Your task to perform on an android device: toggle priority inbox in the gmail app Image 0: 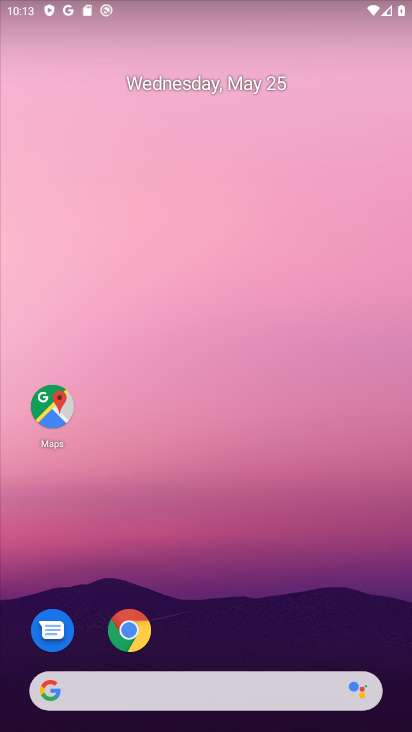
Step 0: drag from (284, 598) to (291, 7)
Your task to perform on an android device: toggle priority inbox in the gmail app Image 1: 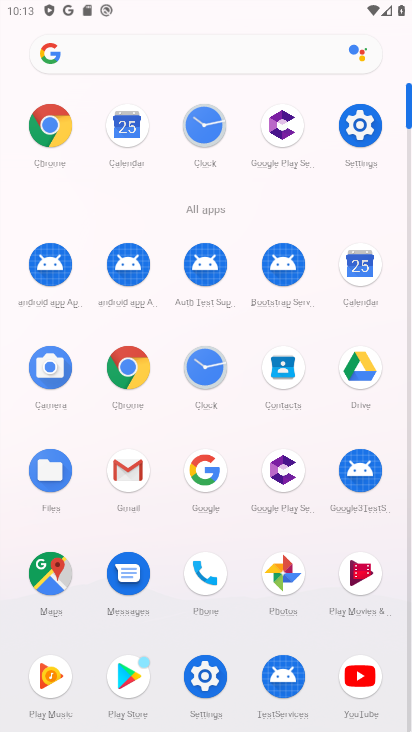
Step 1: click (134, 478)
Your task to perform on an android device: toggle priority inbox in the gmail app Image 2: 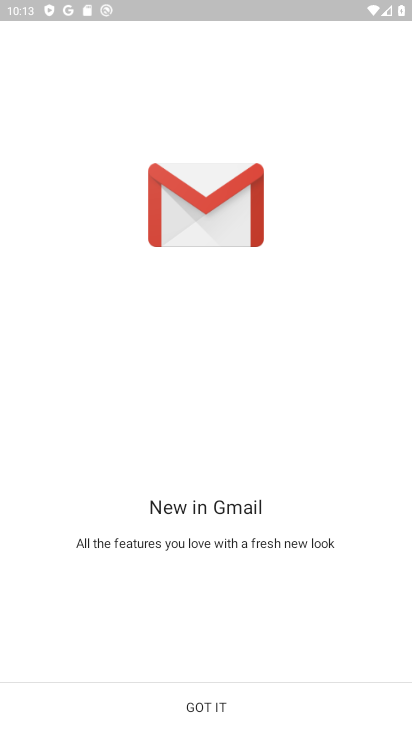
Step 2: click (294, 709)
Your task to perform on an android device: toggle priority inbox in the gmail app Image 3: 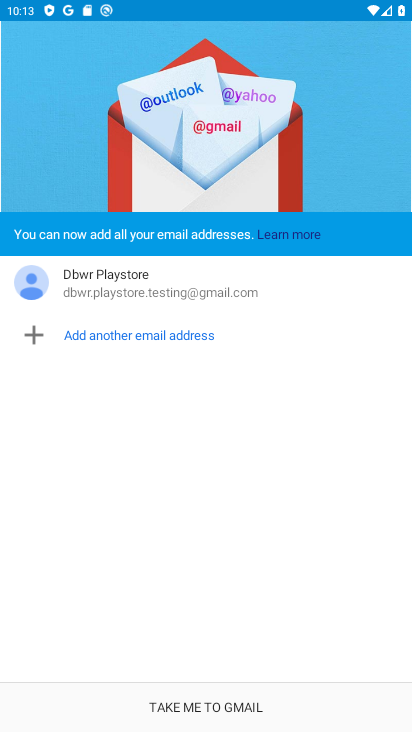
Step 3: click (287, 704)
Your task to perform on an android device: toggle priority inbox in the gmail app Image 4: 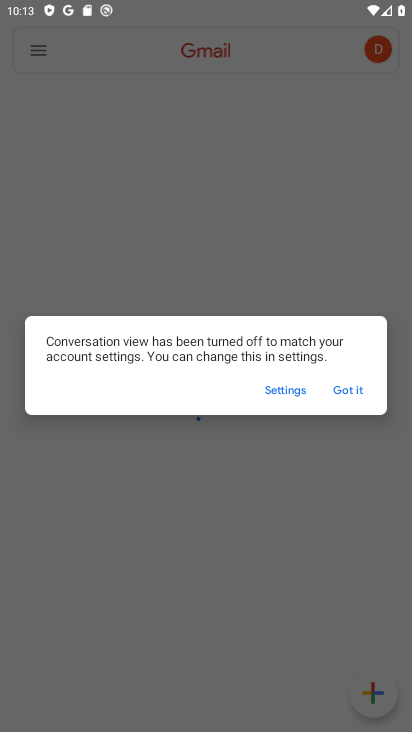
Step 4: click (346, 391)
Your task to perform on an android device: toggle priority inbox in the gmail app Image 5: 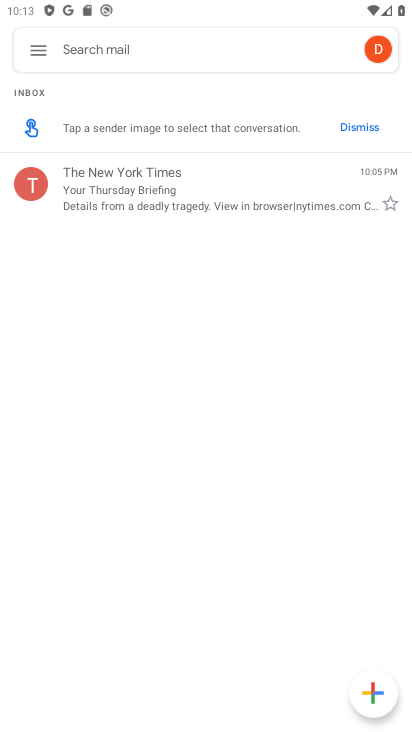
Step 5: click (37, 46)
Your task to perform on an android device: toggle priority inbox in the gmail app Image 6: 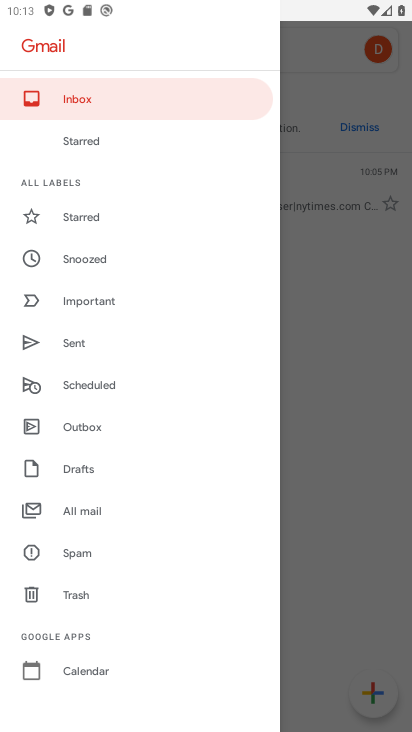
Step 6: drag from (134, 566) to (127, 278)
Your task to perform on an android device: toggle priority inbox in the gmail app Image 7: 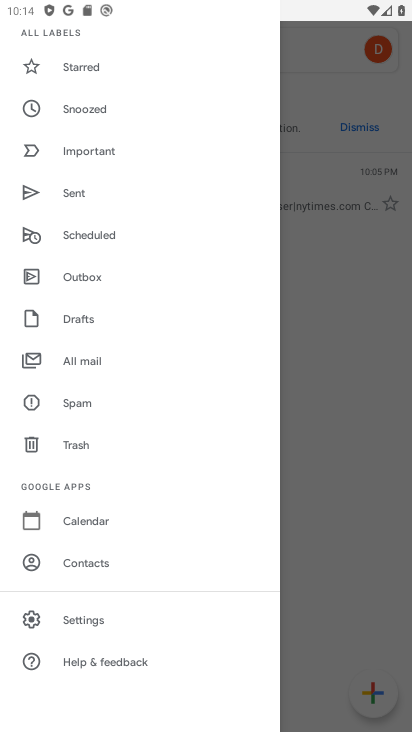
Step 7: click (75, 608)
Your task to perform on an android device: toggle priority inbox in the gmail app Image 8: 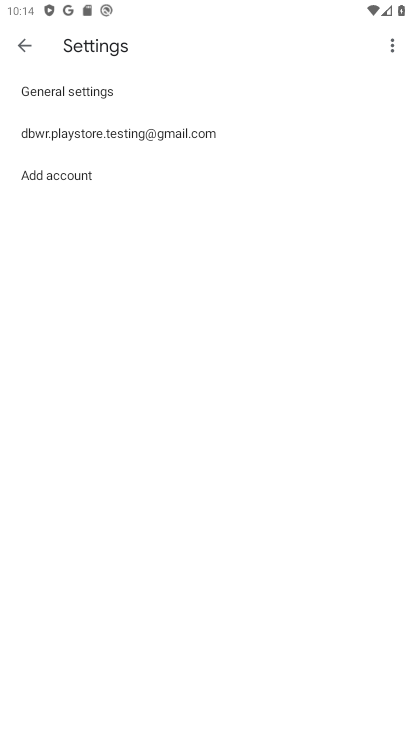
Step 8: click (87, 133)
Your task to perform on an android device: toggle priority inbox in the gmail app Image 9: 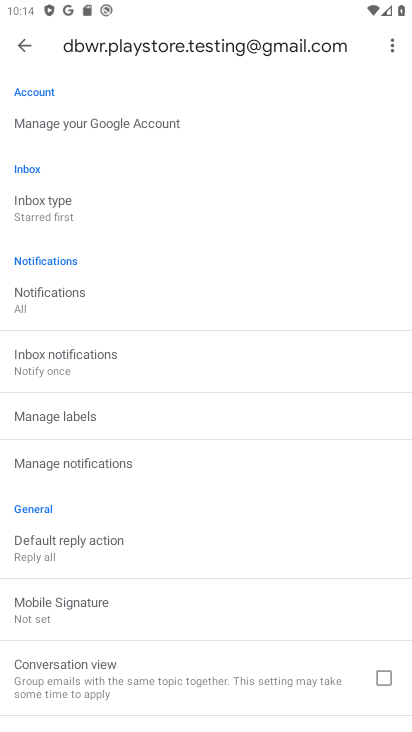
Step 9: click (114, 194)
Your task to perform on an android device: toggle priority inbox in the gmail app Image 10: 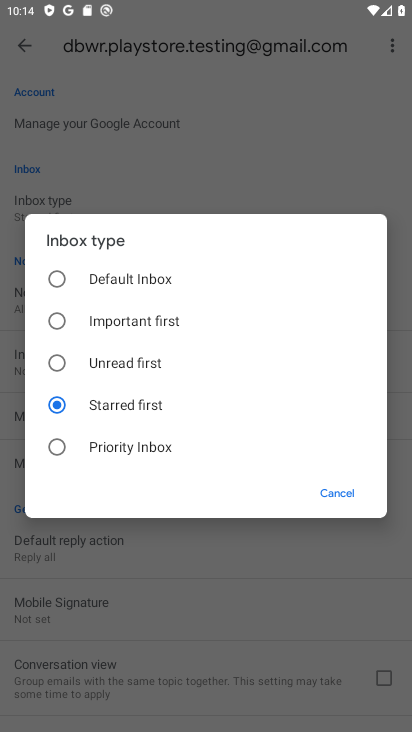
Step 10: click (124, 447)
Your task to perform on an android device: toggle priority inbox in the gmail app Image 11: 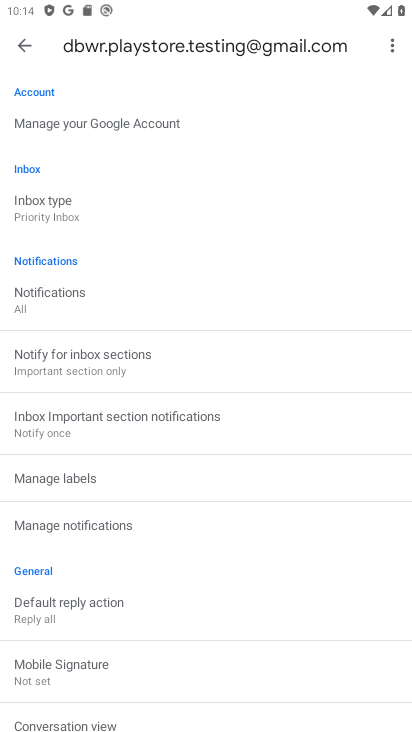
Step 11: task complete